Your task to perform on an android device: Open the phone app and click the voicemail tab. Image 0: 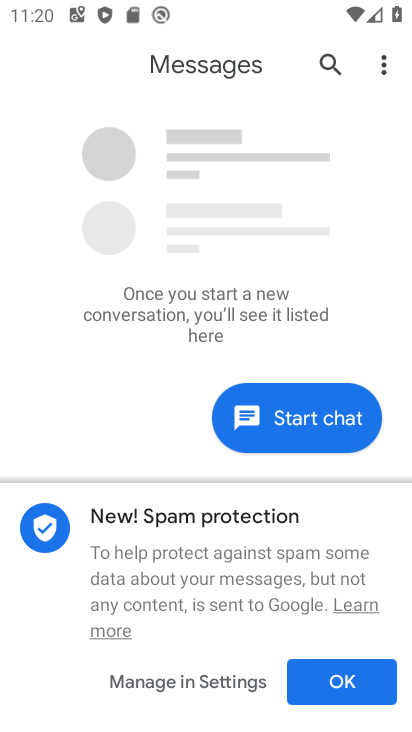
Step 0: press home button
Your task to perform on an android device: Open the phone app and click the voicemail tab. Image 1: 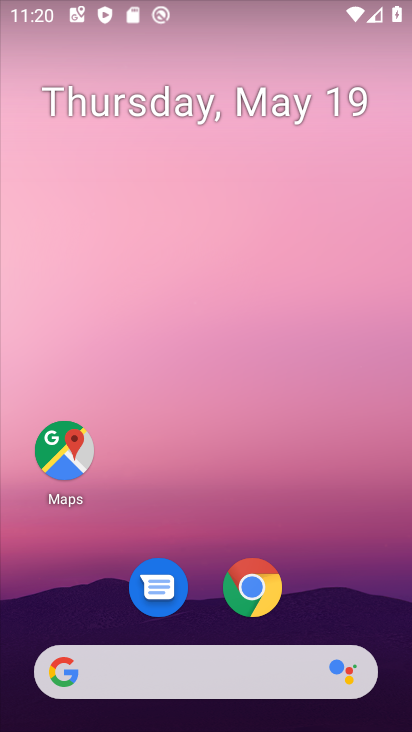
Step 1: drag from (169, 678) to (133, 111)
Your task to perform on an android device: Open the phone app and click the voicemail tab. Image 2: 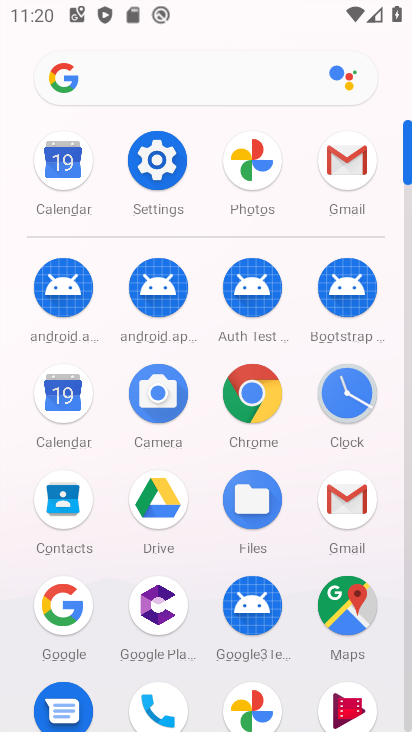
Step 2: drag from (236, 523) to (198, 160)
Your task to perform on an android device: Open the phone app and click the voicemail tab. Image 3: 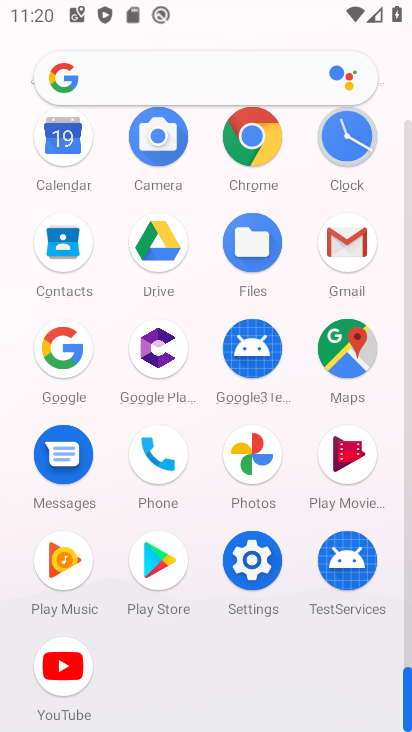
Step 3: click (170, 440)
Your task to perform on an android device: Open the phone app and click the voicemail tab. Image 4: 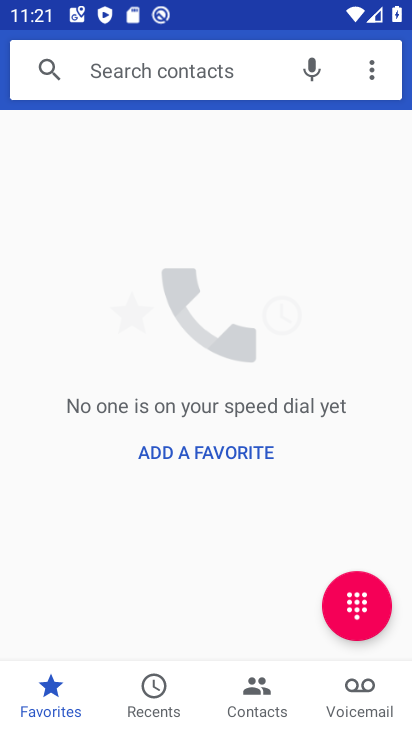
Step 4: click (367, 690)
Your task to perform on an android device: Open the phone app and click the voicemail tab. Image 5: 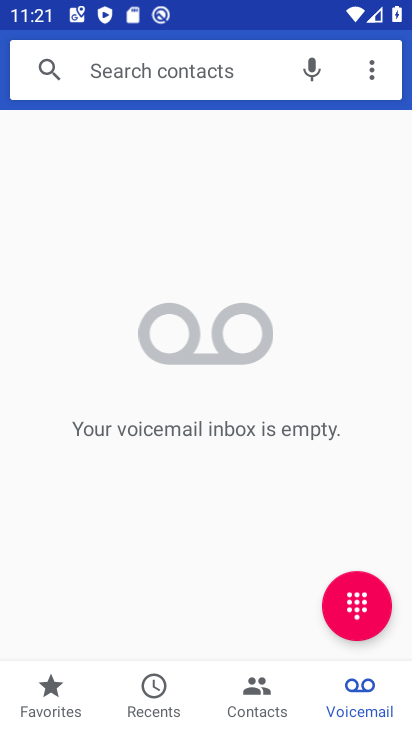
Step 5: task complete